Your task to perform on an android device: all mails in gmail Image 0: 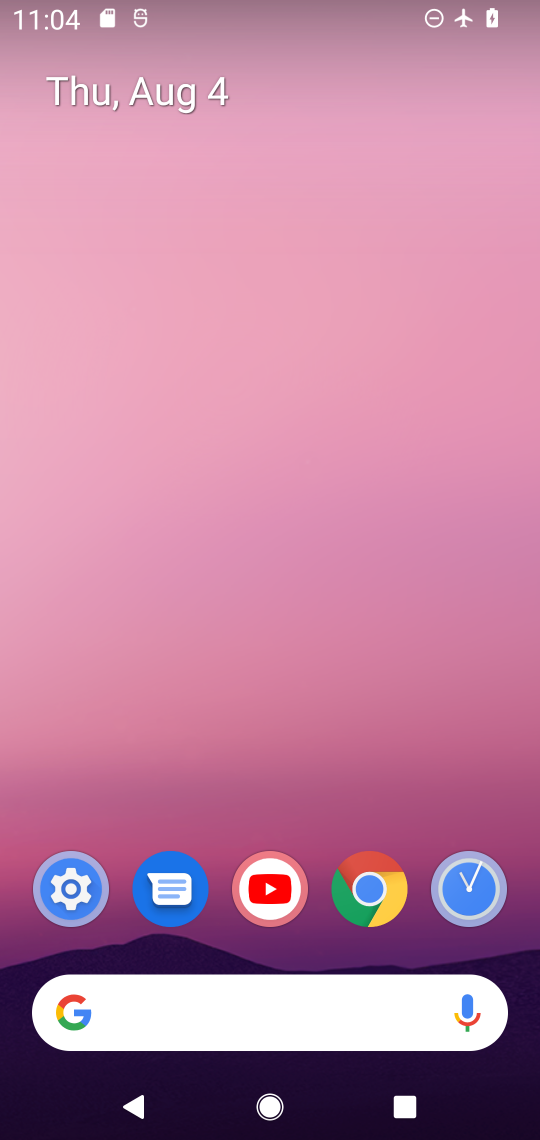
Step 0: drag from (431, 750) to (423, 205)
Your task to perform on an android device: all mails in gmail Image 1: 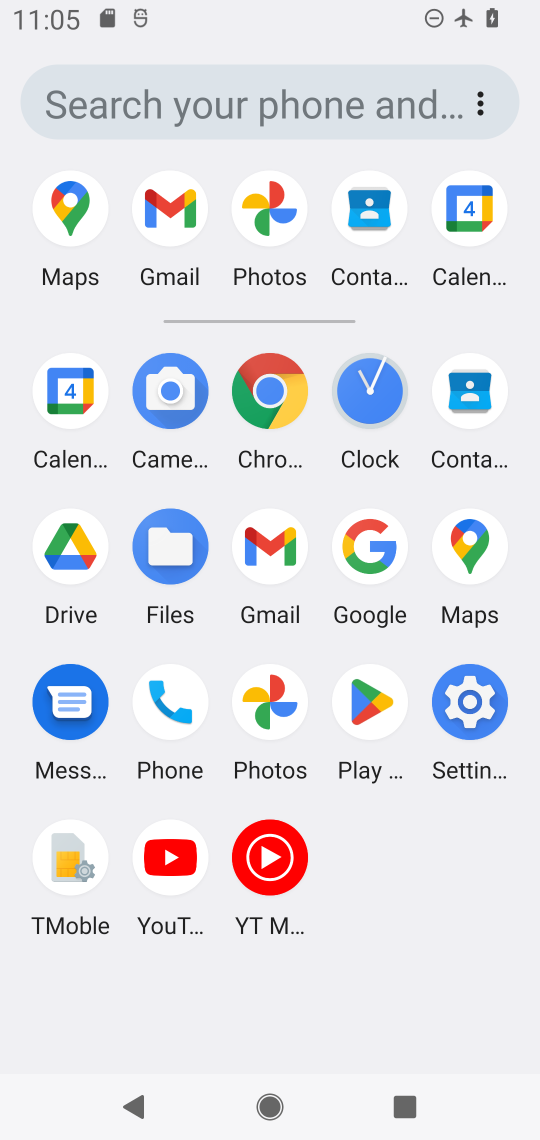
Step 1: click (275, 541)
Your task to perform on an android device: all mails in gmail Image 2: 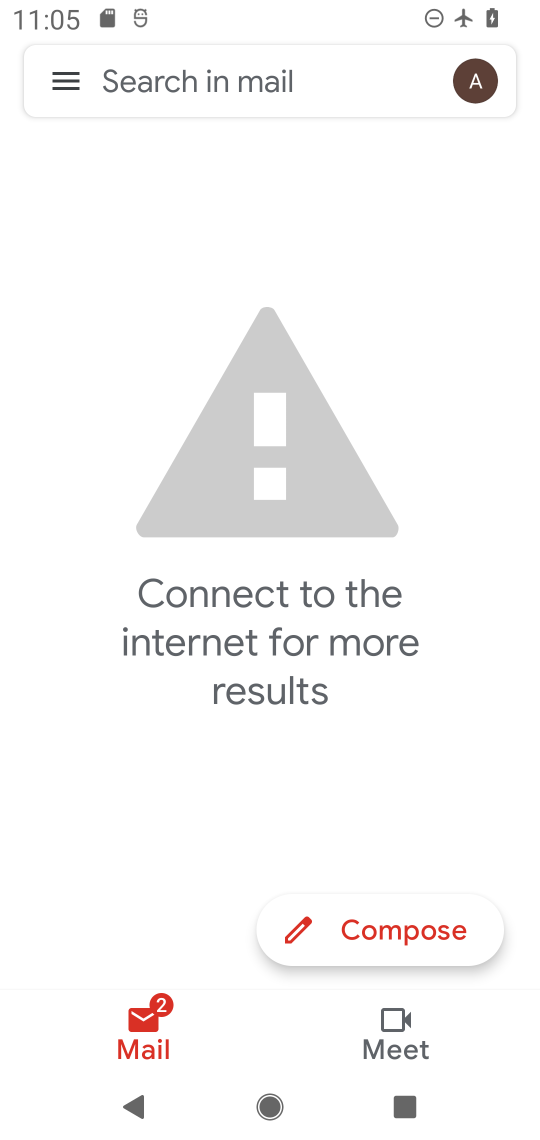
Step 2: click (70, 79)
Your task to perform on an android device: all mails in gmail Image 3: 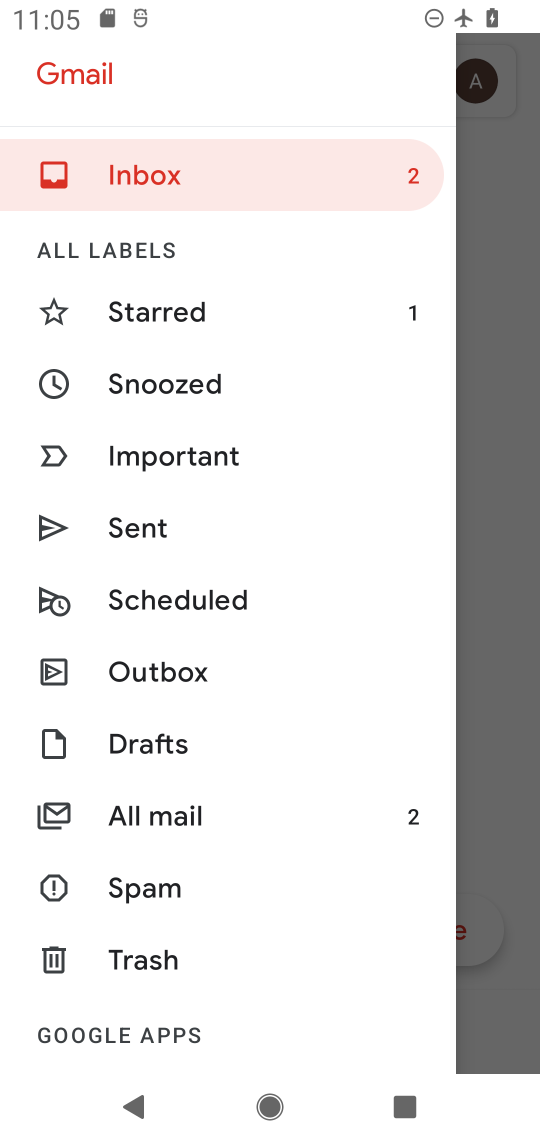
Step 3: drag from (293, 520) to (300, 409)
Your task to perform on an android device: all mails in gmail Image 4: 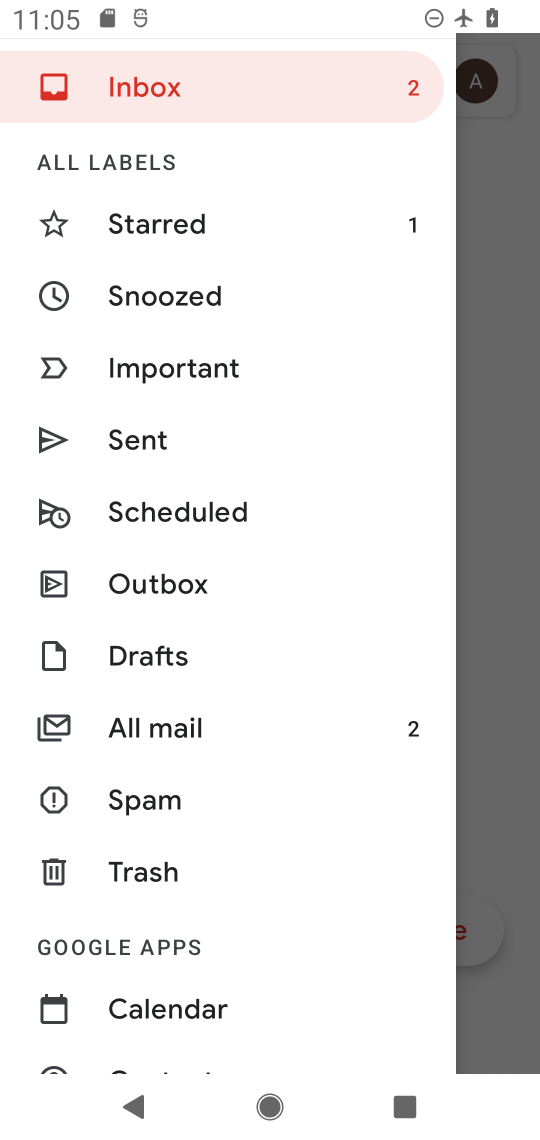
Step 4: drag from (293, 767) to (311, 483)
Your task to perform on an android device: all mails in gmail Image 5: 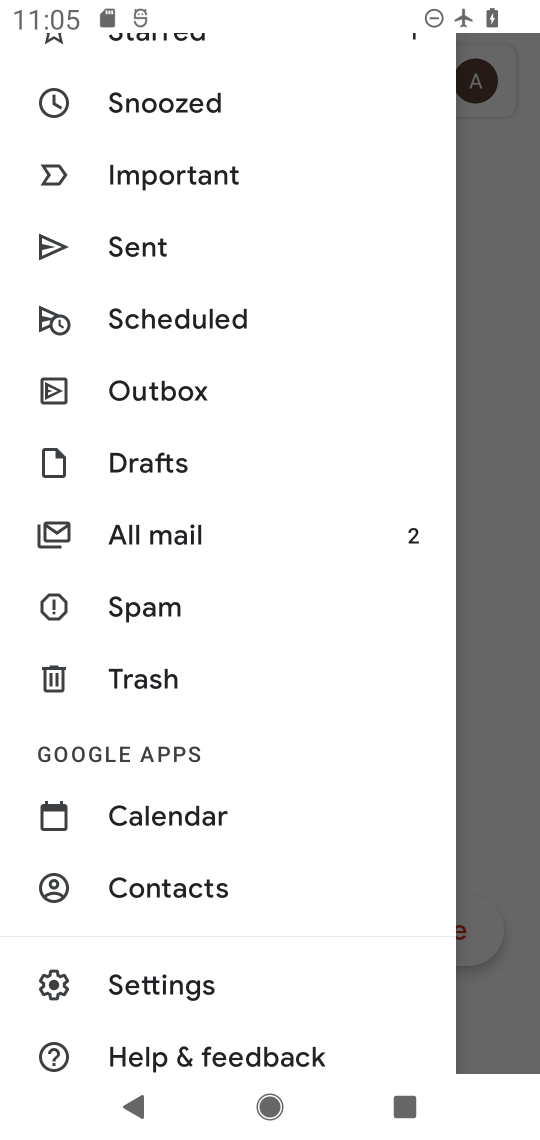
Step 5: click (250, 536)
Your task to perform on an android device: all mails in gmail Image 6: 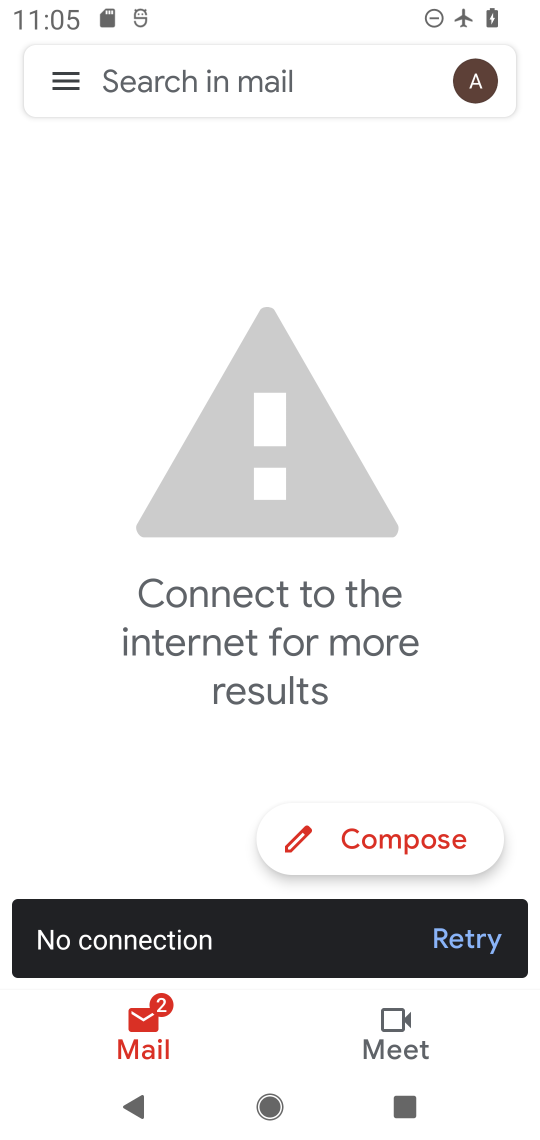
Step 6: task complete